Your task to perform on an android device: change the upload size in google photos Image 0: 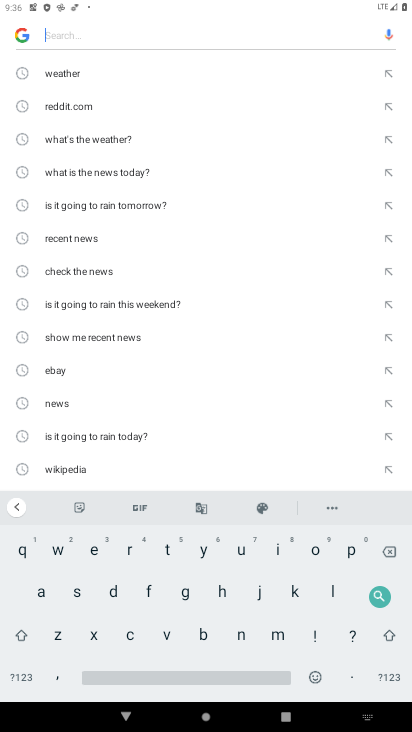
Step 0: press home button
Your task to perform on an android device: change the upload size in google photos Image 1: 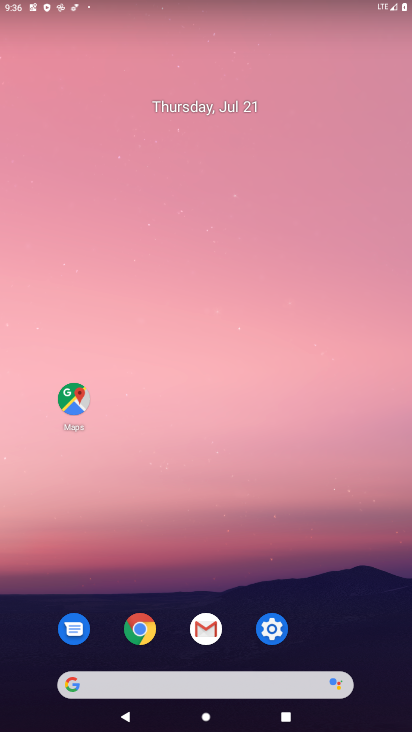
Step 1: drag from (280, 700) to (409, 127)
Your task to perform on an android device: change the upload size in google photos Image 2: 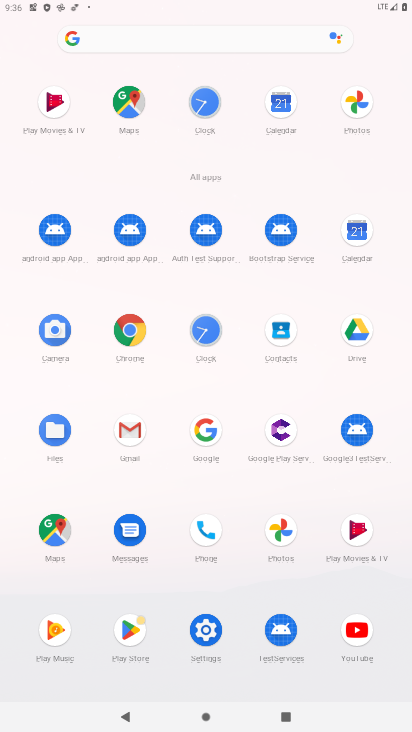
Step 2: click (289, 545)
Your task to perform on an android device: change the upload size in google photos Image 3: 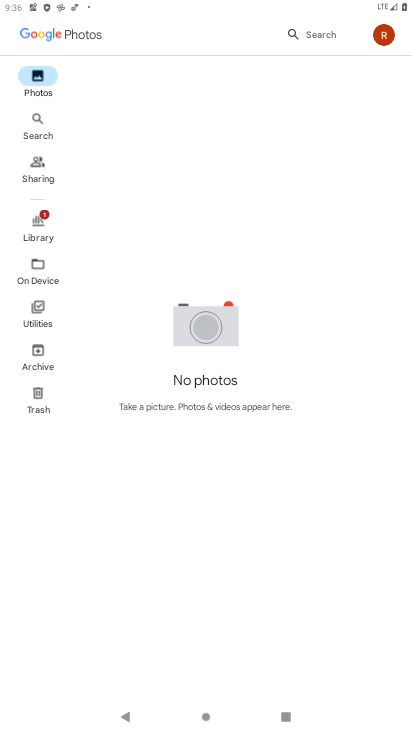
Step 3: click (382, 37)
Your task to perform on an android device: change the upload size in google photos Image 4: 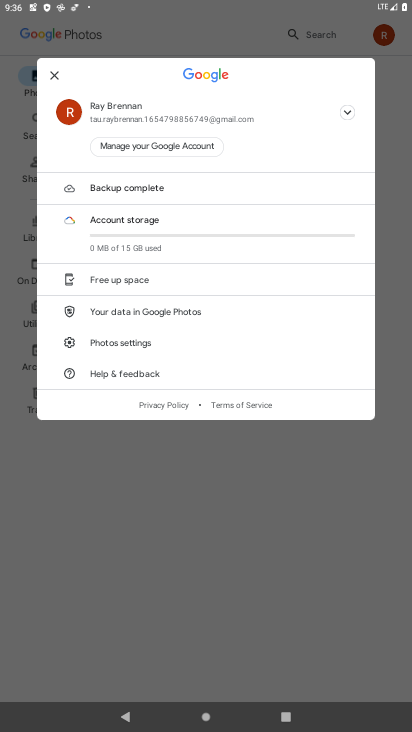
Step 4: click (130, 343)
Your task to perform on an android device: change the upload size in google photos Image 5: 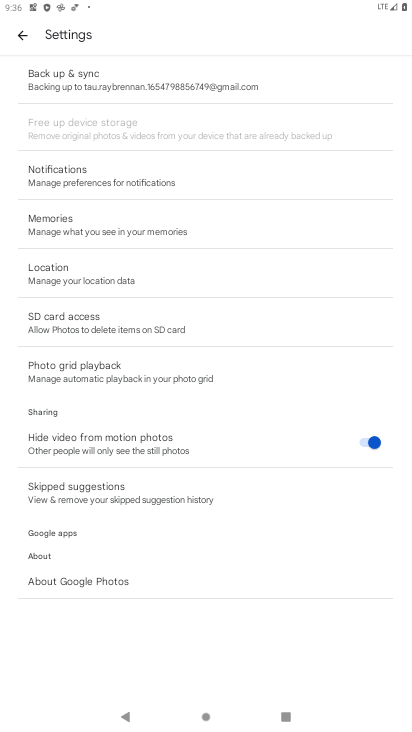
Step 5: click (103, 88)
Your task to perform on an android device: change the upload size in google photos Image 6: 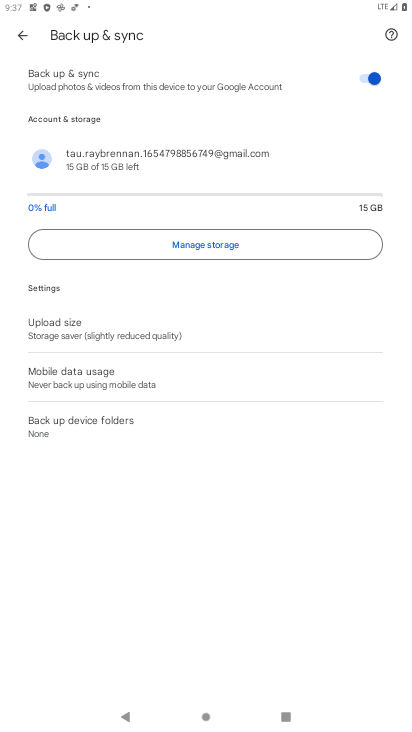
Step 6: click (128, 332)
Your task to perform on an android device: change the upload size in google photos Image 7: 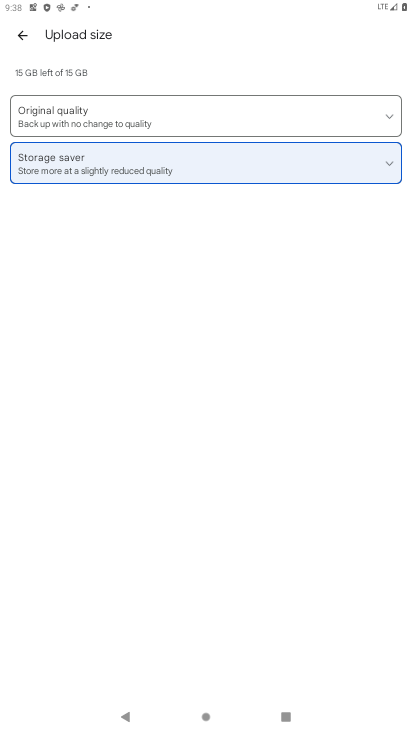
Step 7: task complete